Your task to perform on an android device: Open notification settings Image 0: 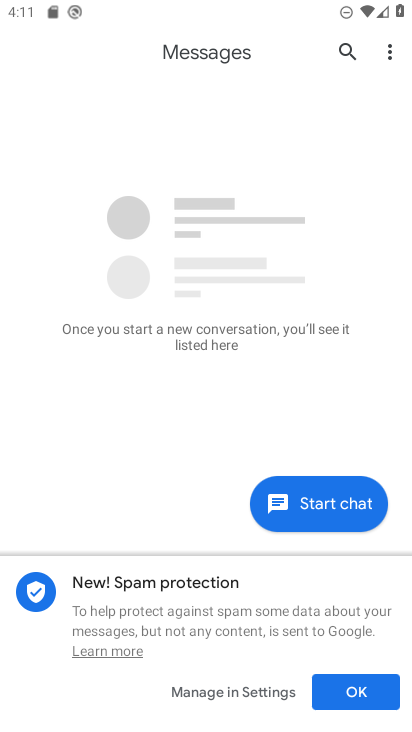
Step 0: press home button
Your task to perform on an android device: Open notification settings Image 1: 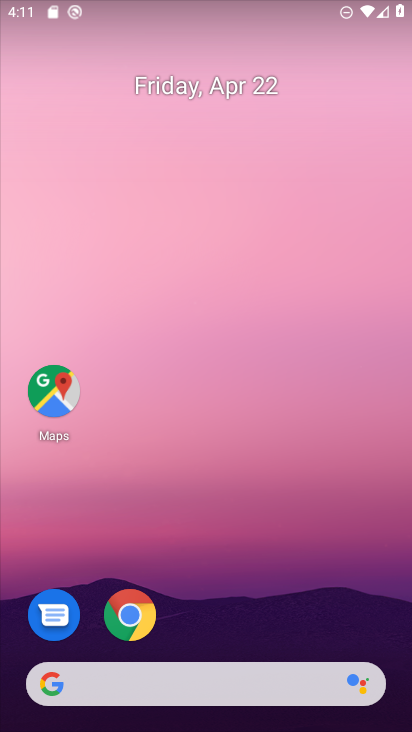
Step 1: drag from (217, 611) to (202, 42)
Your task to perform on an android device: Open notification settings Image 2: 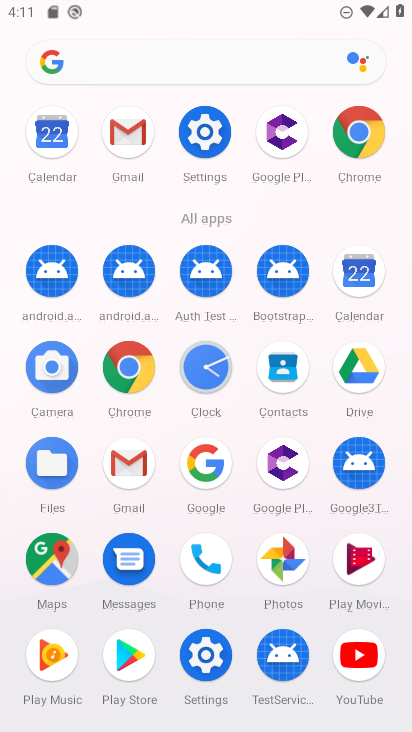
Step 2: click (204, 677)
Your task to perform on an android device: Open notification settings Image 3: 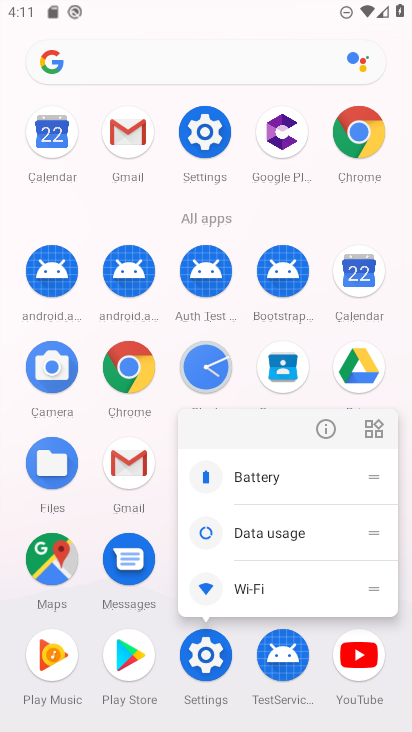
Step 3: click (202, 666)
Your task to perform on an android device: Open notification settings Image 4: 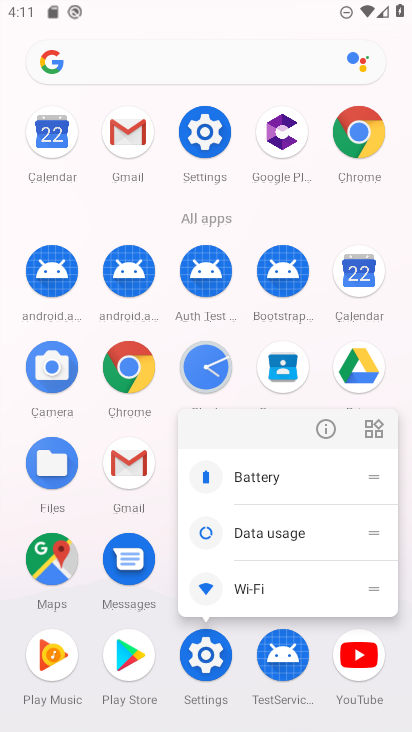
Step 4: click (199, 128)
Your task to perform on an android device: Open notification settings Image 5: 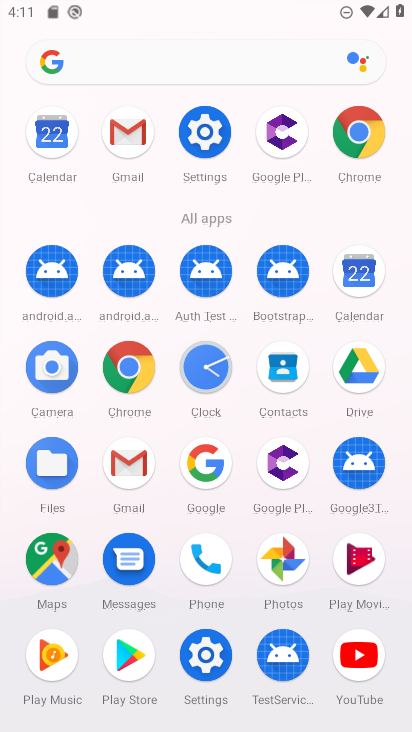
Step 5: click (200, 130)
Your task to perform on an android device: Open notification settings Image 6: 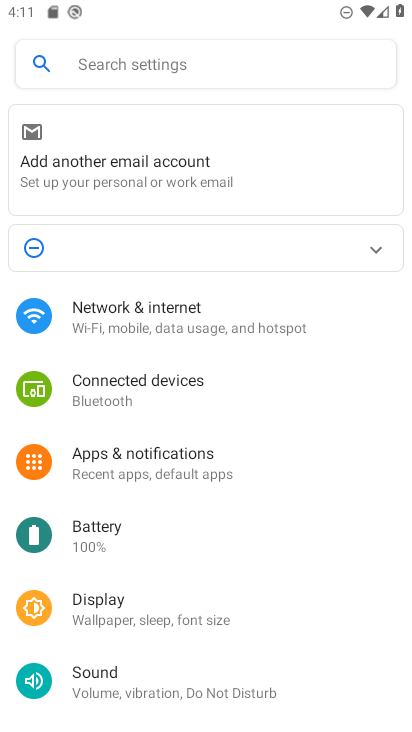
Step 6: click (132, 467)
Your task to perform on an android device: Open notification settings Image 7: 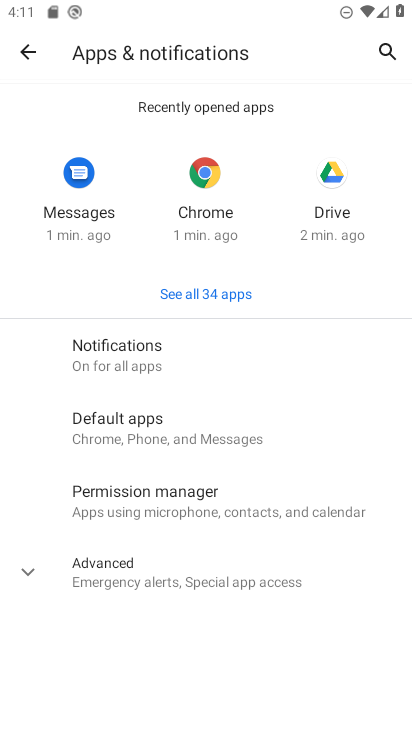
Step 7: click (138, 350)
Your task to perform on an android device: Open notification settings Image 8: 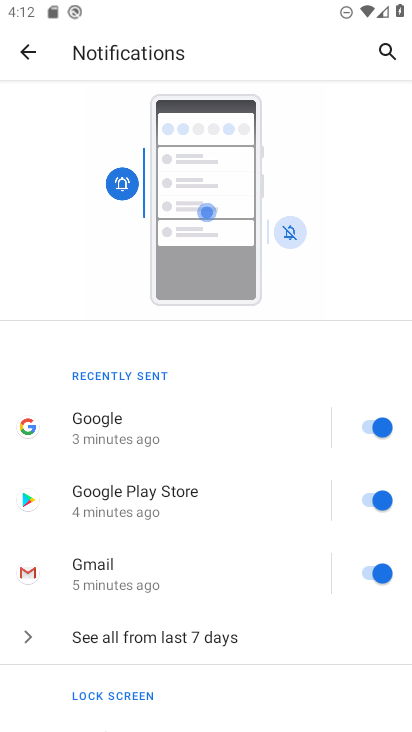
Step 8: task complete